Your task to perform on an android device: When is my next appointment? Image 0: 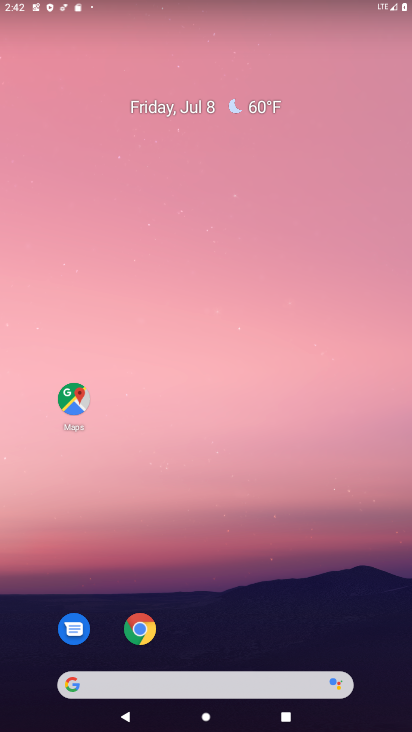
Step 0: drag from (223, 640) to (223, 266)
Your task to perform on an android device: When is my next appointment? Image 1: 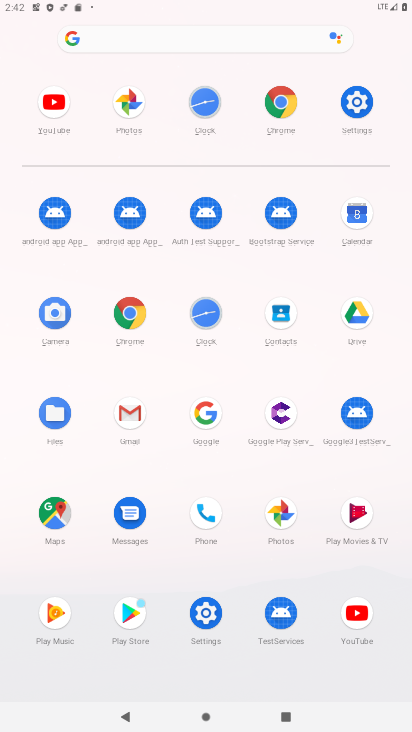
Step 1: click (367, 225)
Your task to perform on an android device: When is my next appointment? Image 2: 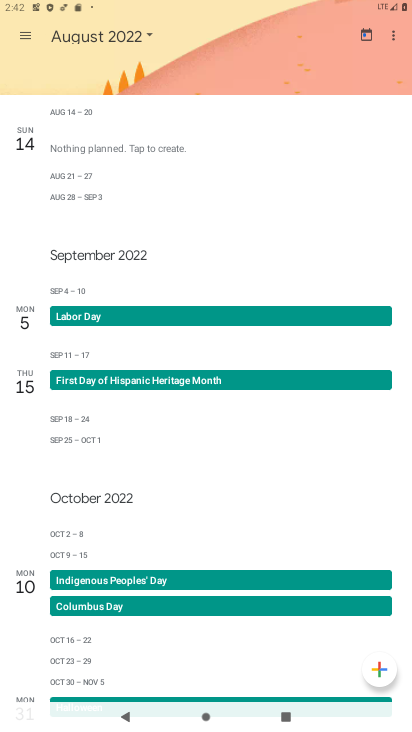
Step 2: task complete